Your task to perform on an android device: Open Android settings Image 0: 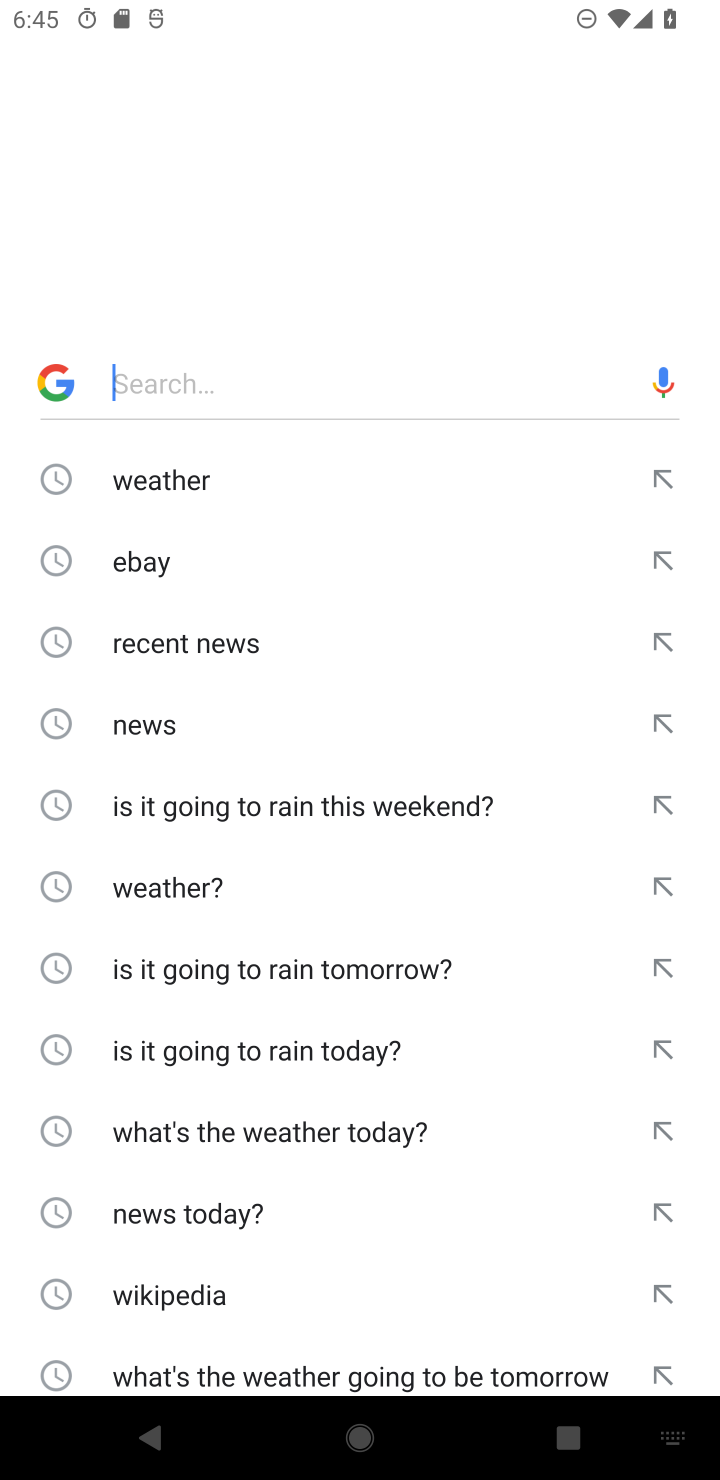
Step 0: press home button
Your task to perform on an android device: Open Android settings Image 1: 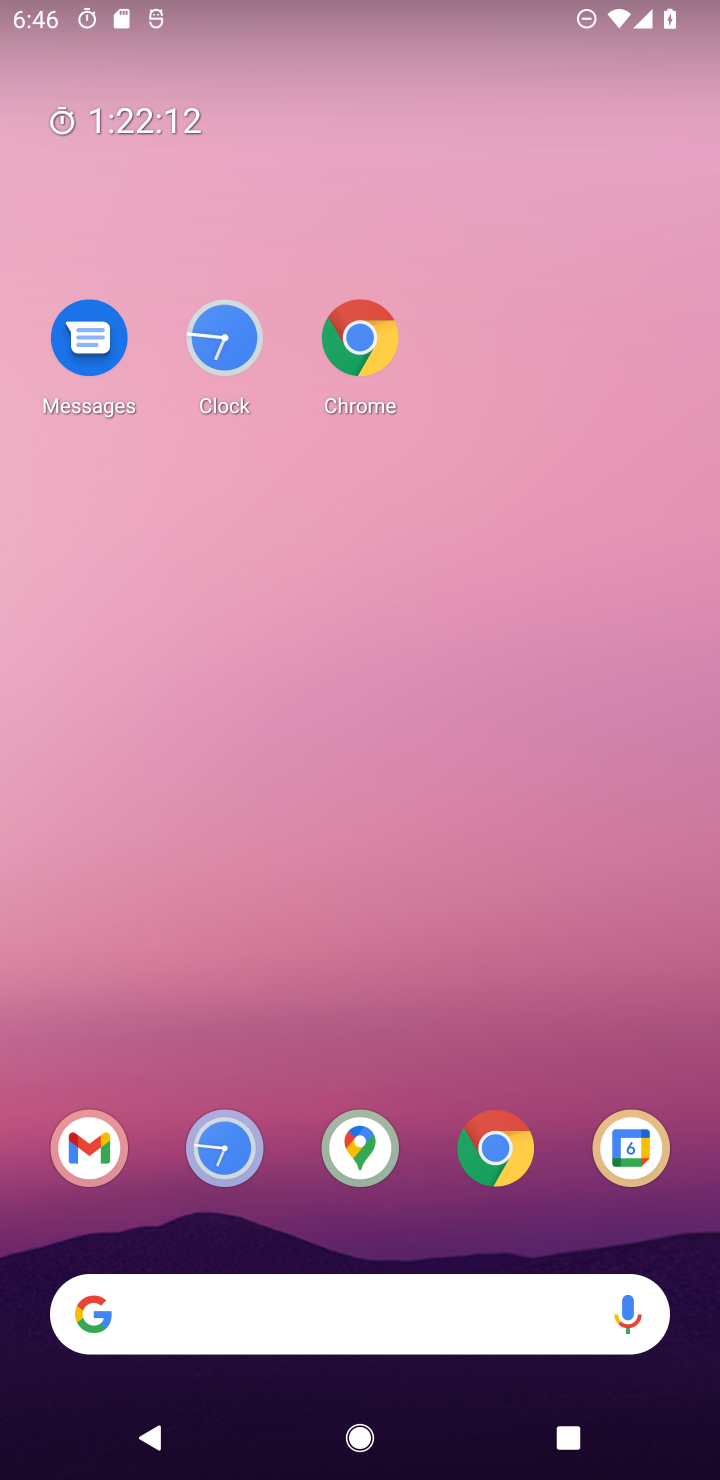
Step 1: drag from (426, 1191) to (518, 589)
Your task to perform on an android device: Open Android settings Image 2: 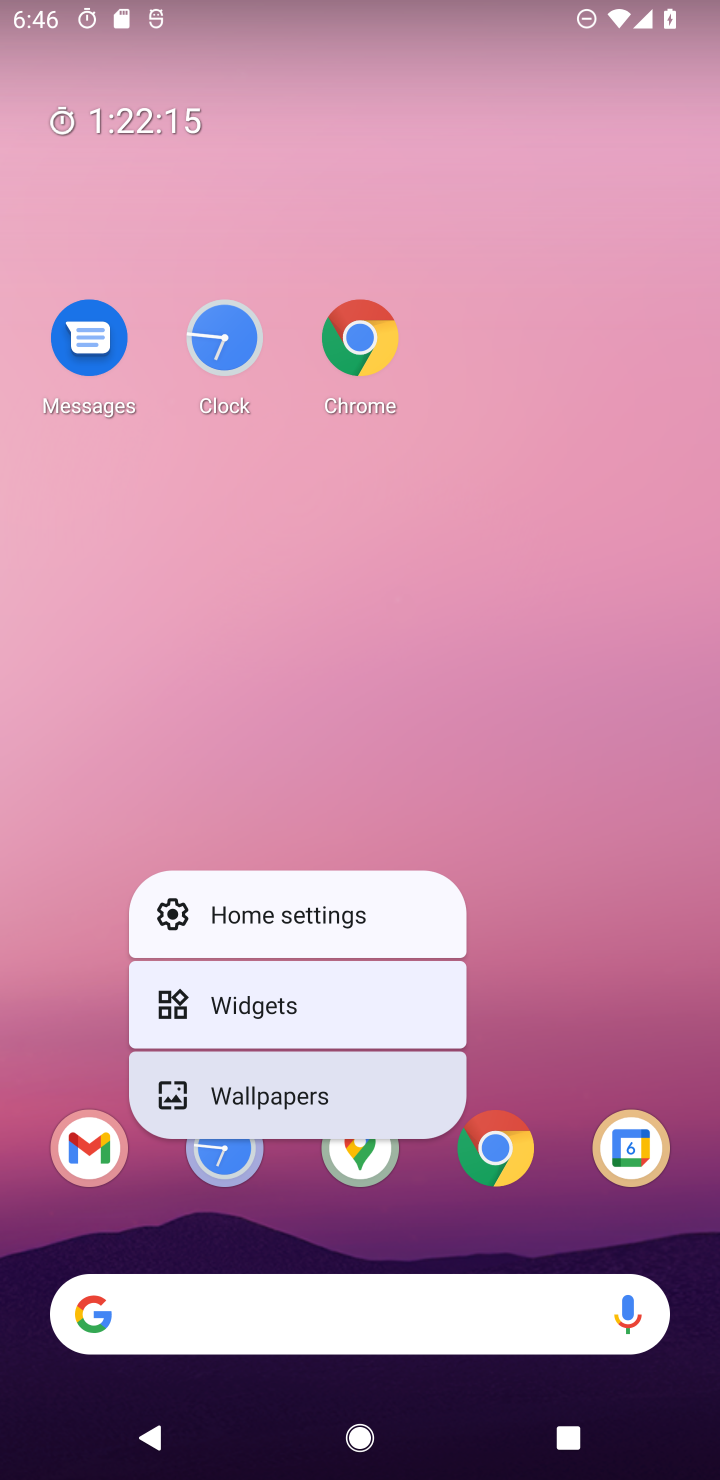
Step 2: drag from (442, 1241) to (547, 323)
Your task to perform on an android device: Open Android settings Image 3: 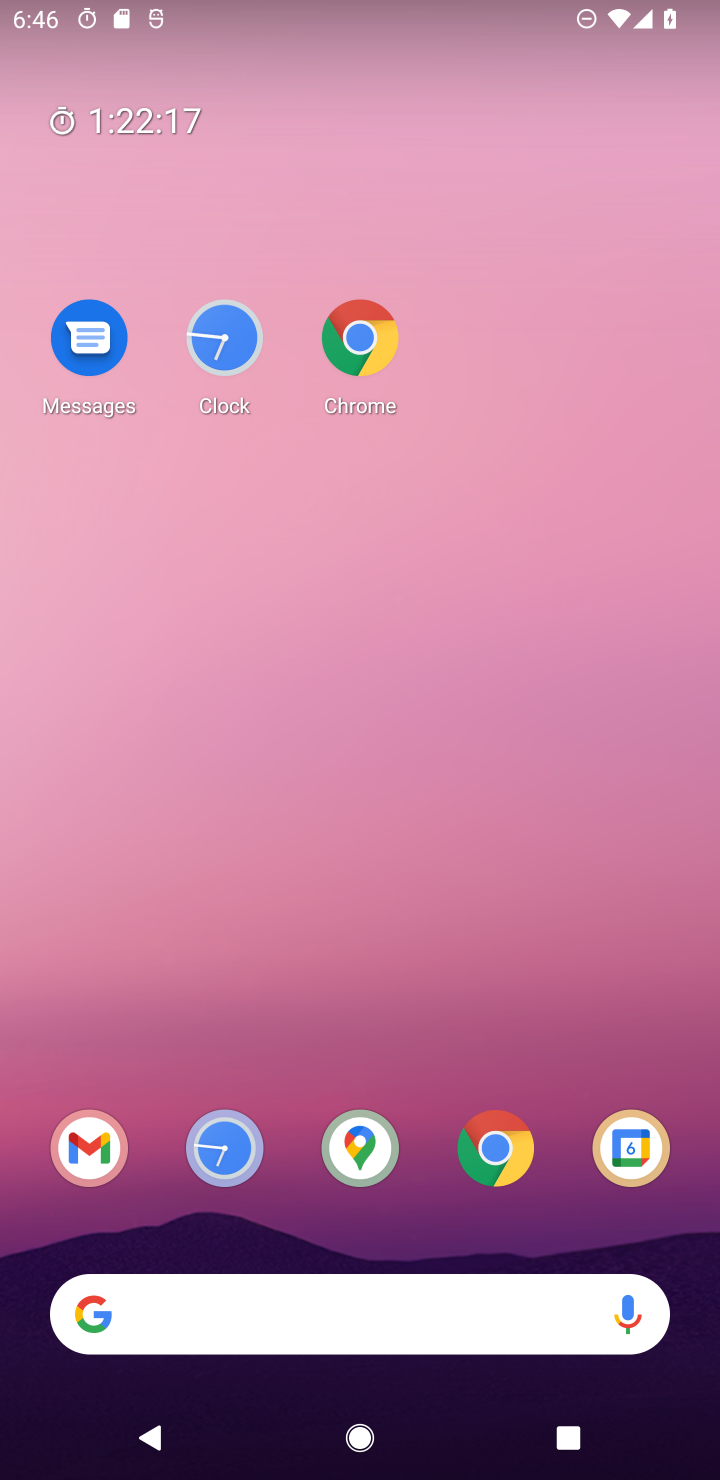
Step 3: drag from (400, 680) to (415, 295)
Your task to perform on an android device: Open Android settings Image 4: 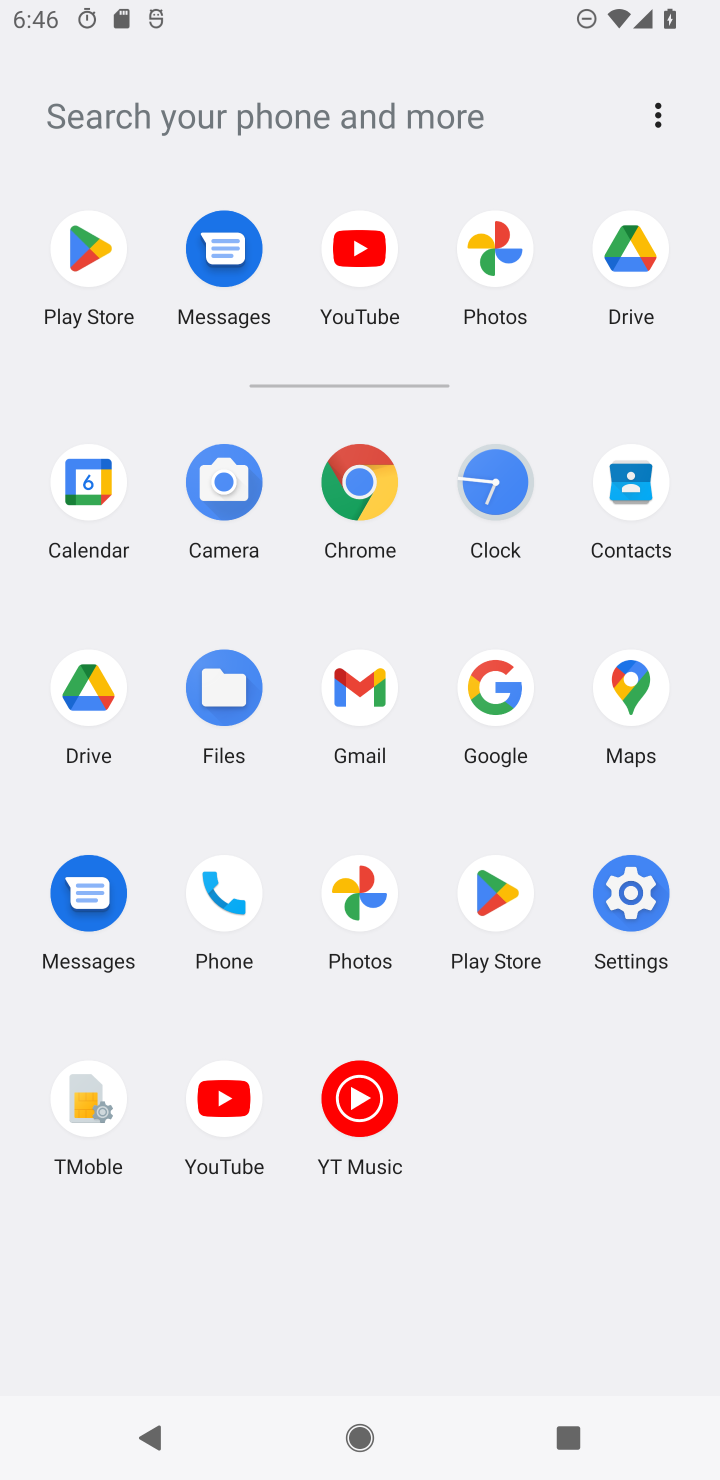
Step 4: click (626, 907)
Your task to perform on an android device: Open Android settings Image 5: 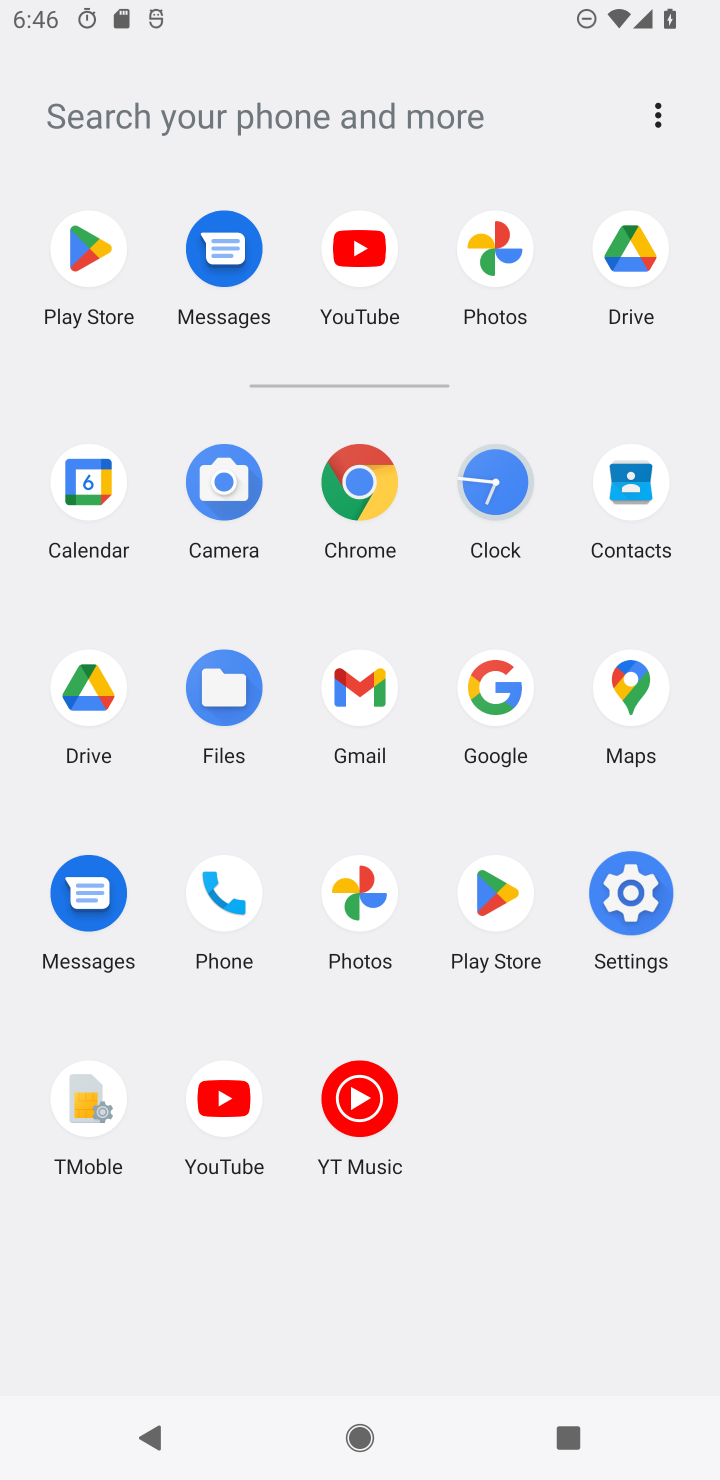
Step 5: click (626, 907)
Your task to perform on an android device: Open Android settings Image 6: 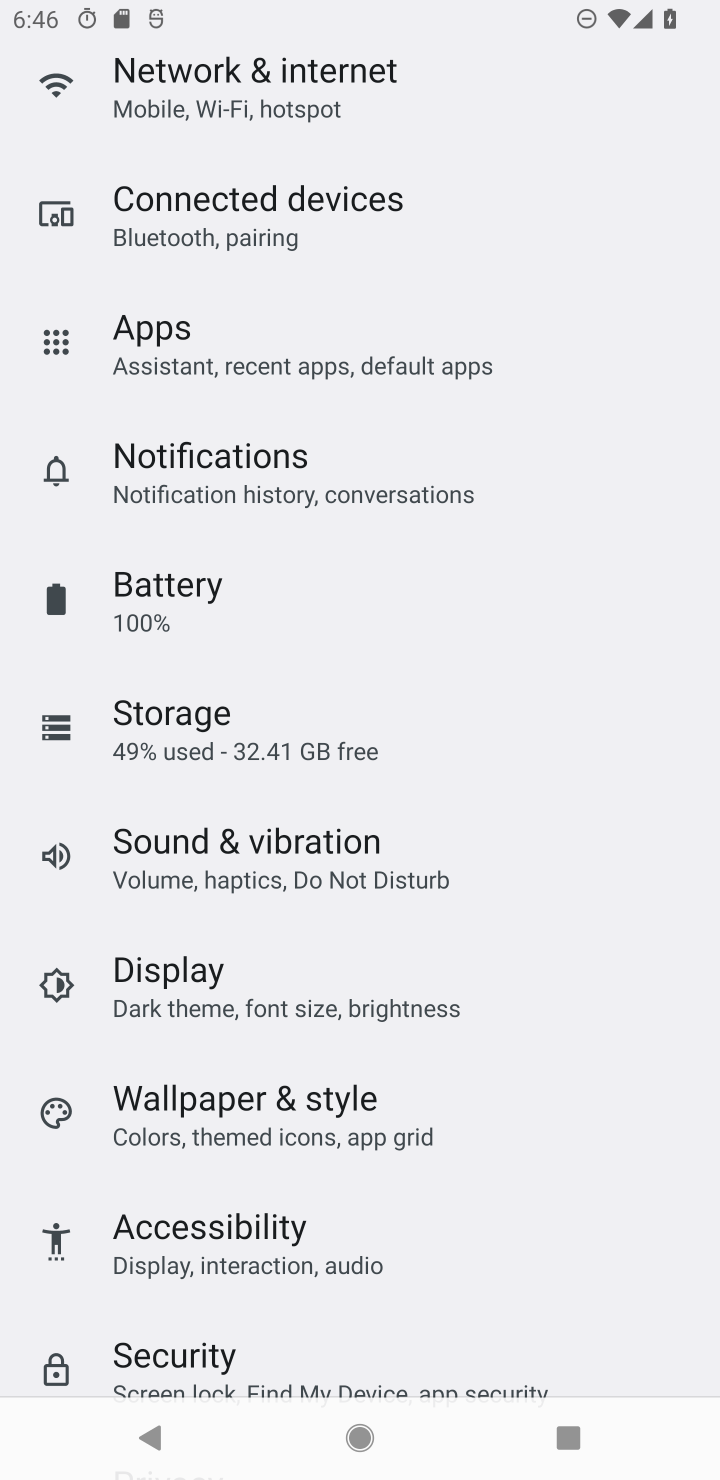
Step 6: drag from (300, 866) to (424, 212)
Your task to perform on an android device: Open Android settings Image 7: 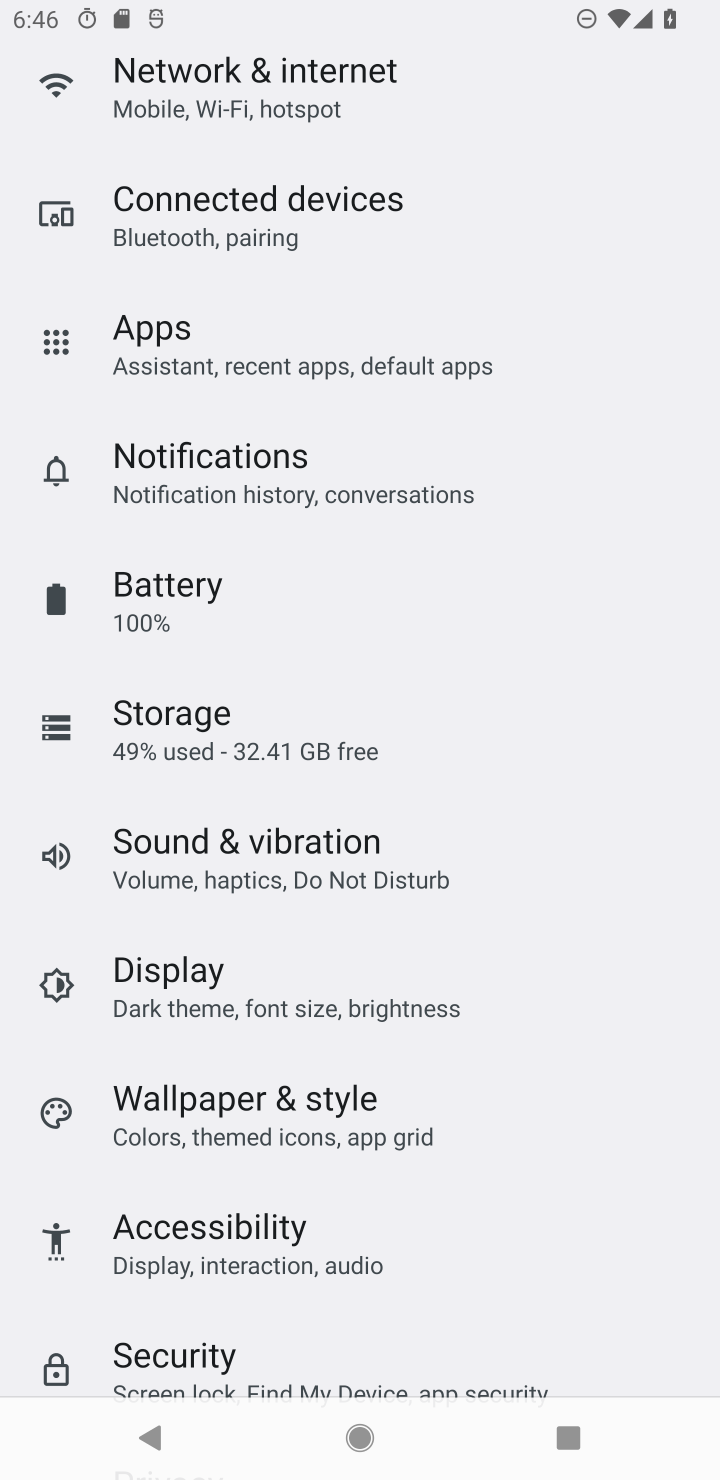
Step 7: drag from (372, 1103) to (430, 355)
Your task to perform on an android device: Open Android settings Image 8: 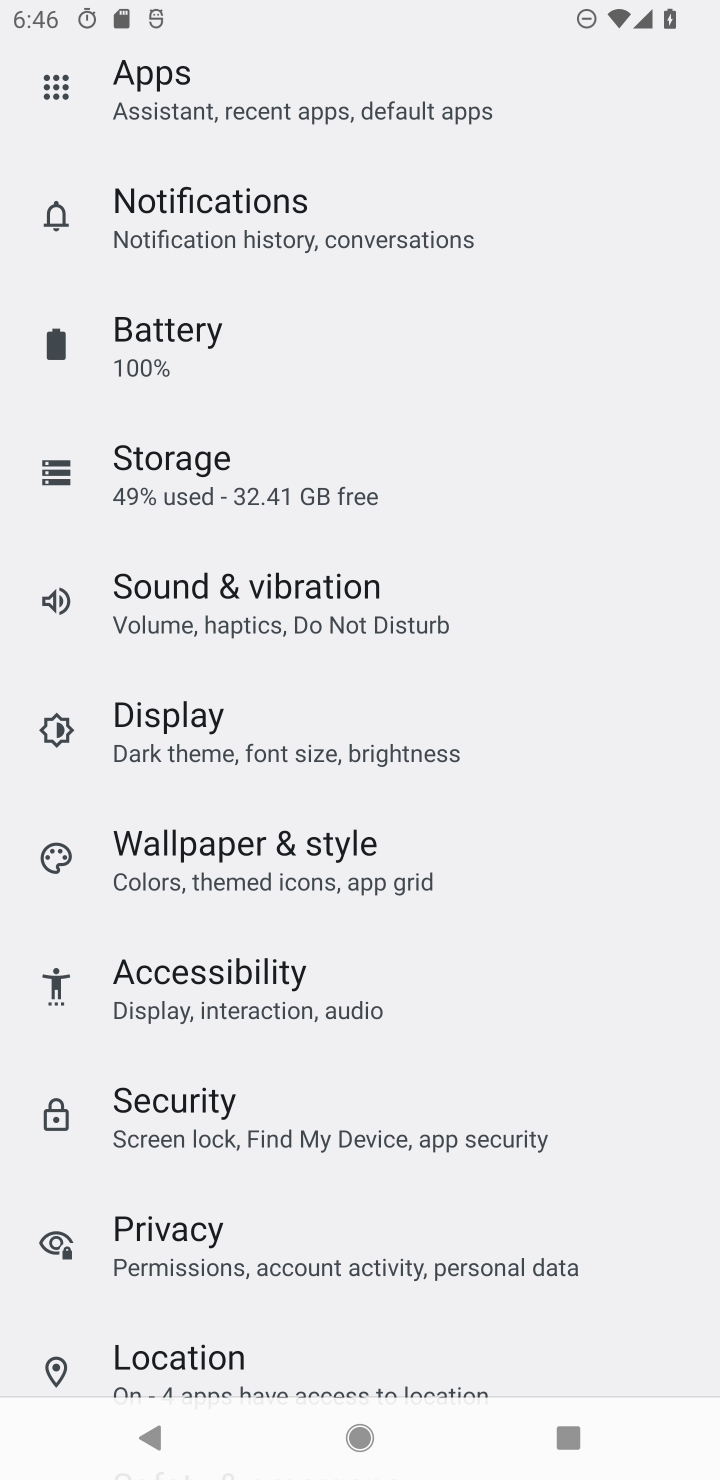
Step 8: drag from (418, 1214) to (623, 559)
Your task to perform on an android device: Open Android settings Image 9: 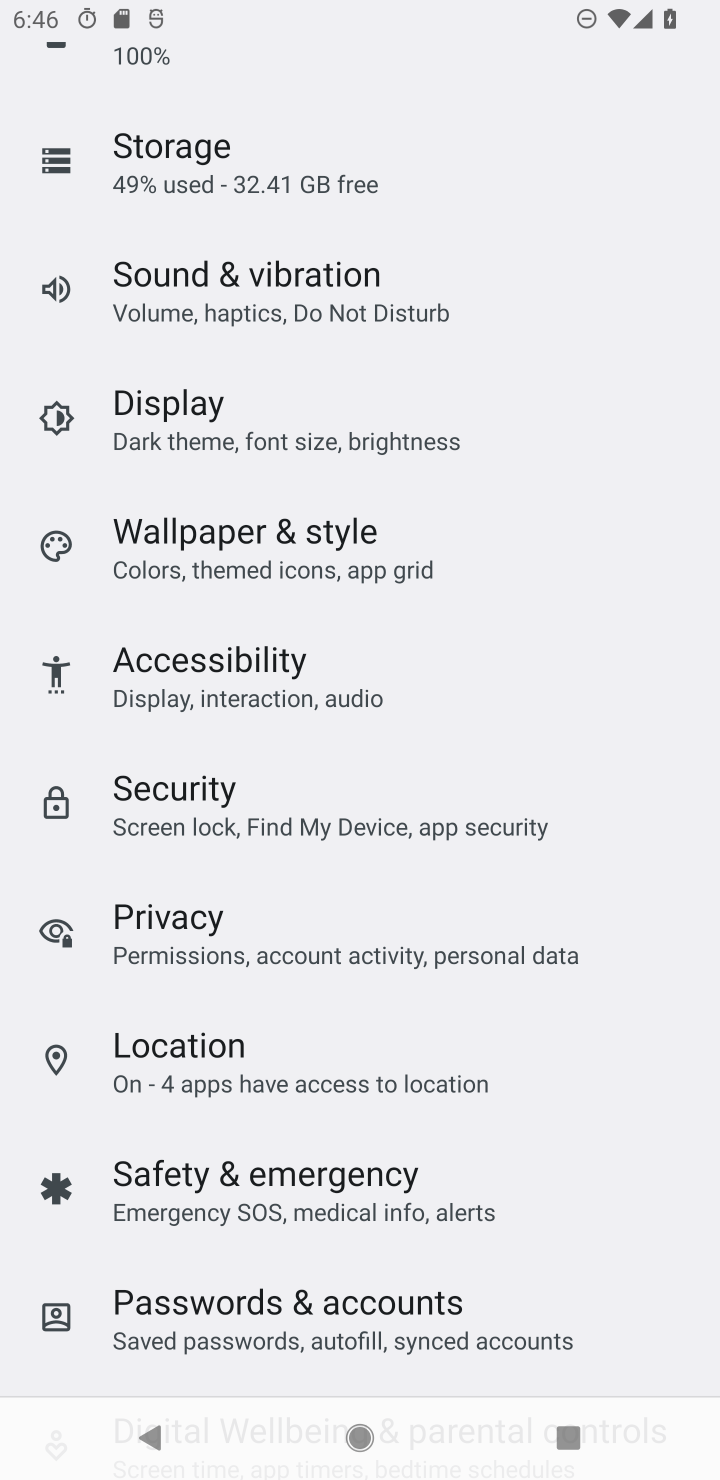
Step 9: drag from (365, 1277) to (463, 621)
Your task to perform on an android device: Open Android settings Image 10: 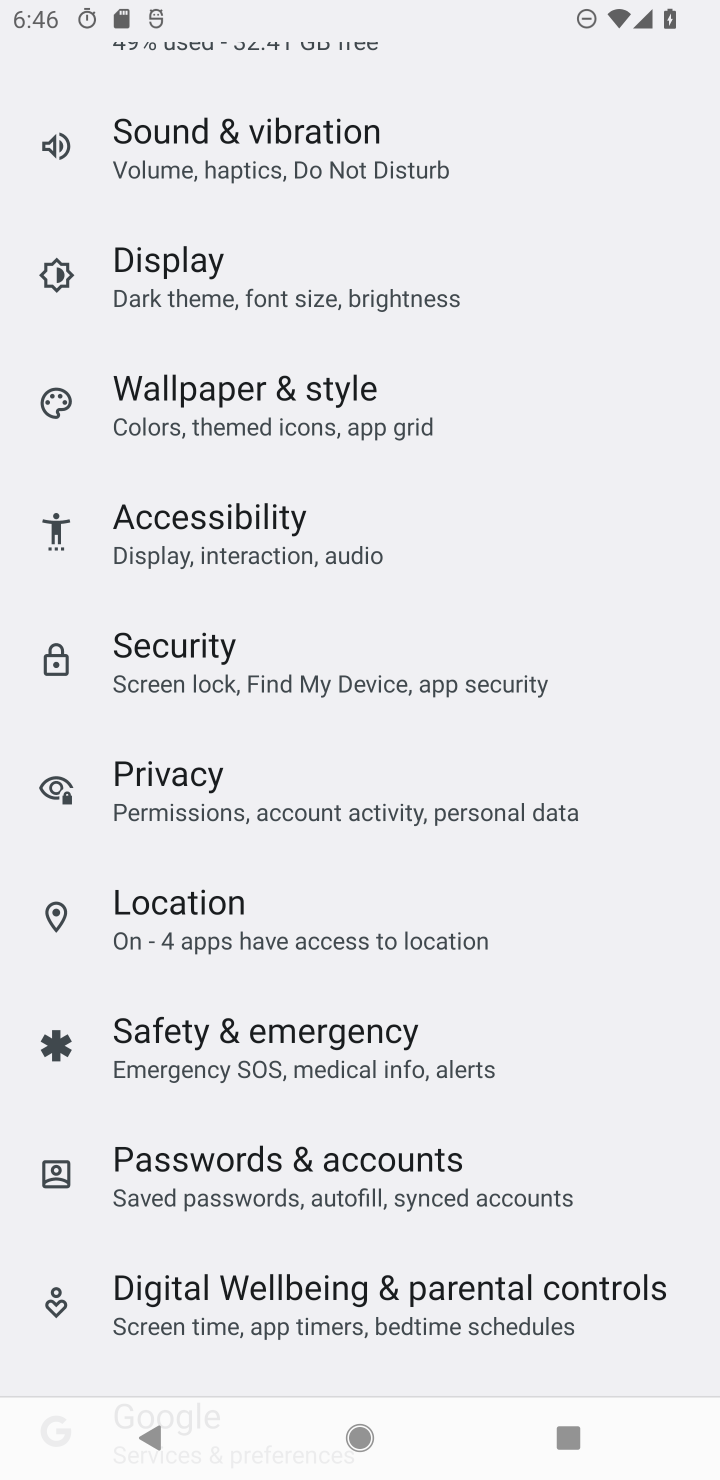
Step 10: drag from (338, 1244) to (561, 472)
Your task to perform on an android device: Open Android settings Image 11: 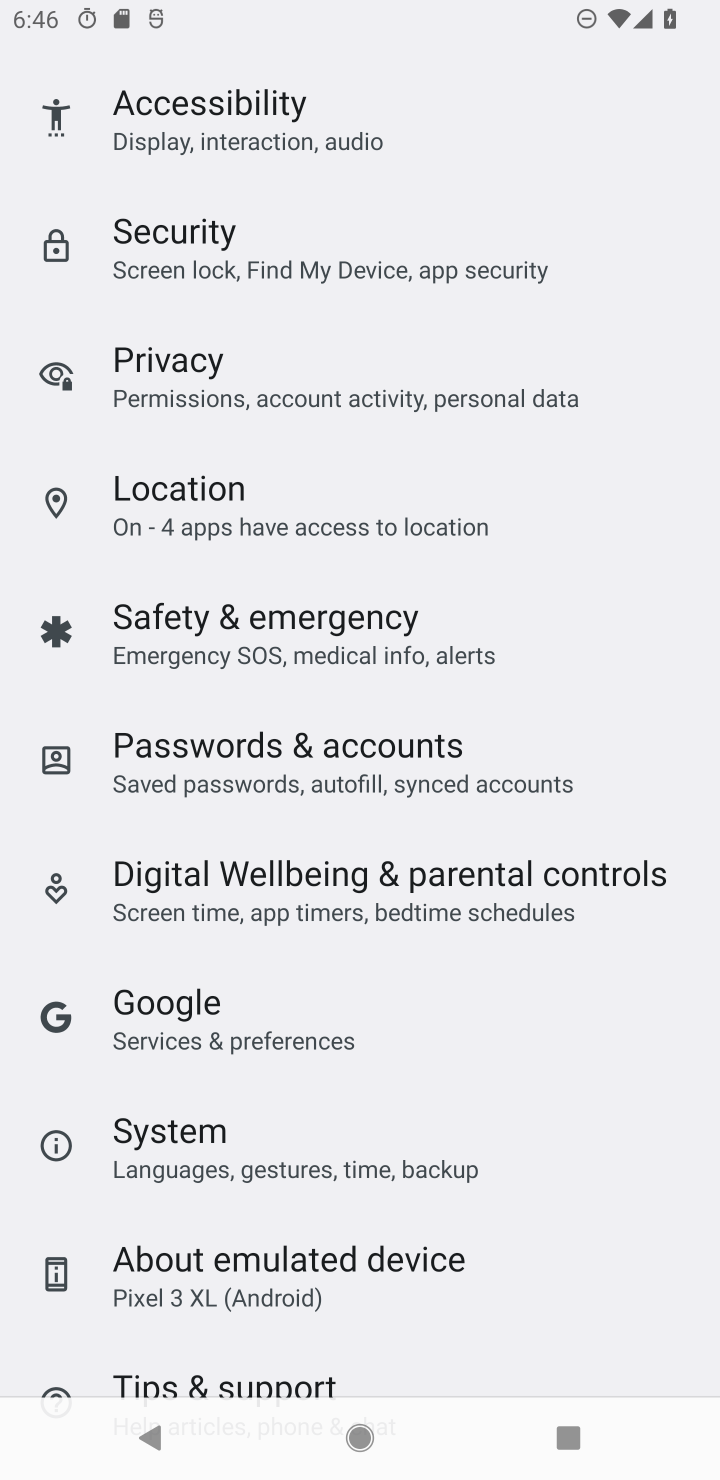
Step 11: drag from (313, 1107) to (434, 522)
Your task to perform on an android device: Open Android settings Image 12: 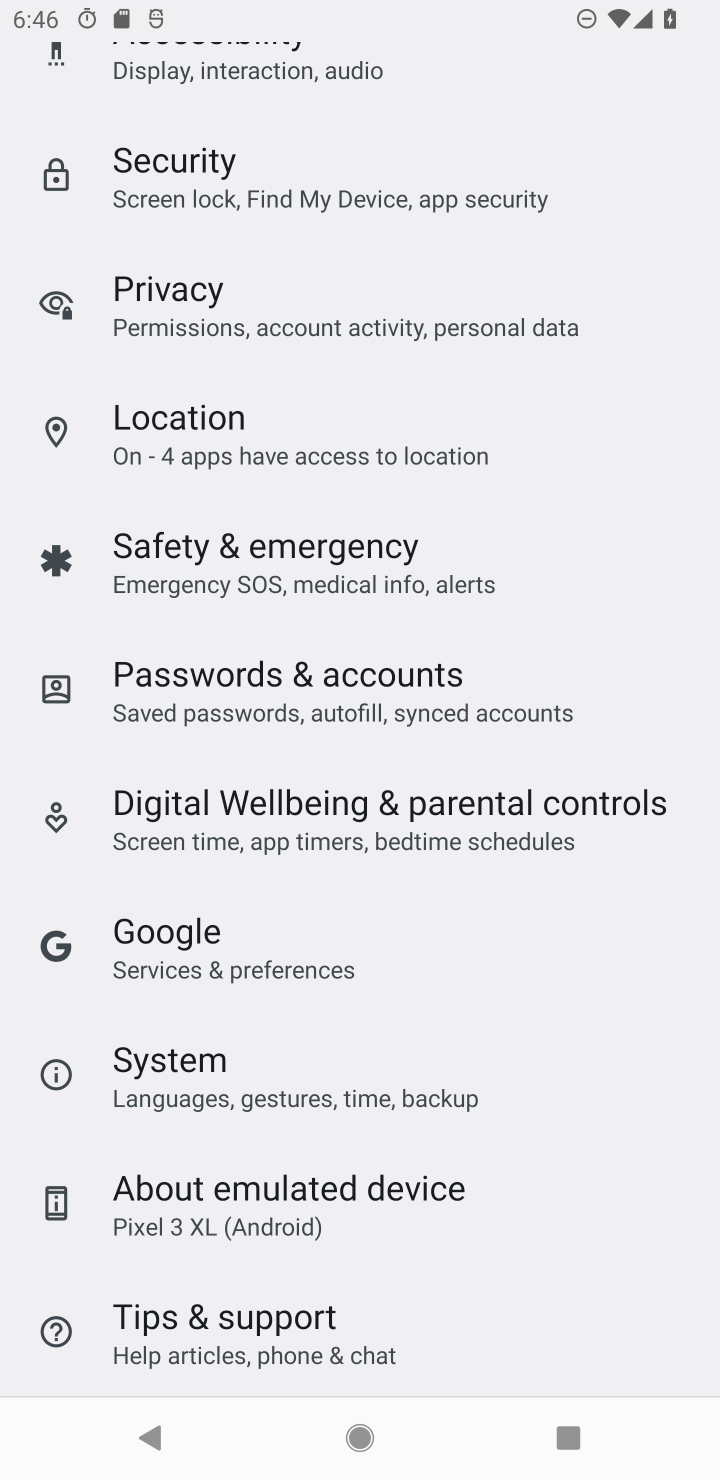
Step 12: drag from (359, 1075) to (468, 329)
Your task to perform on an android device: Open Android settings Image 13: 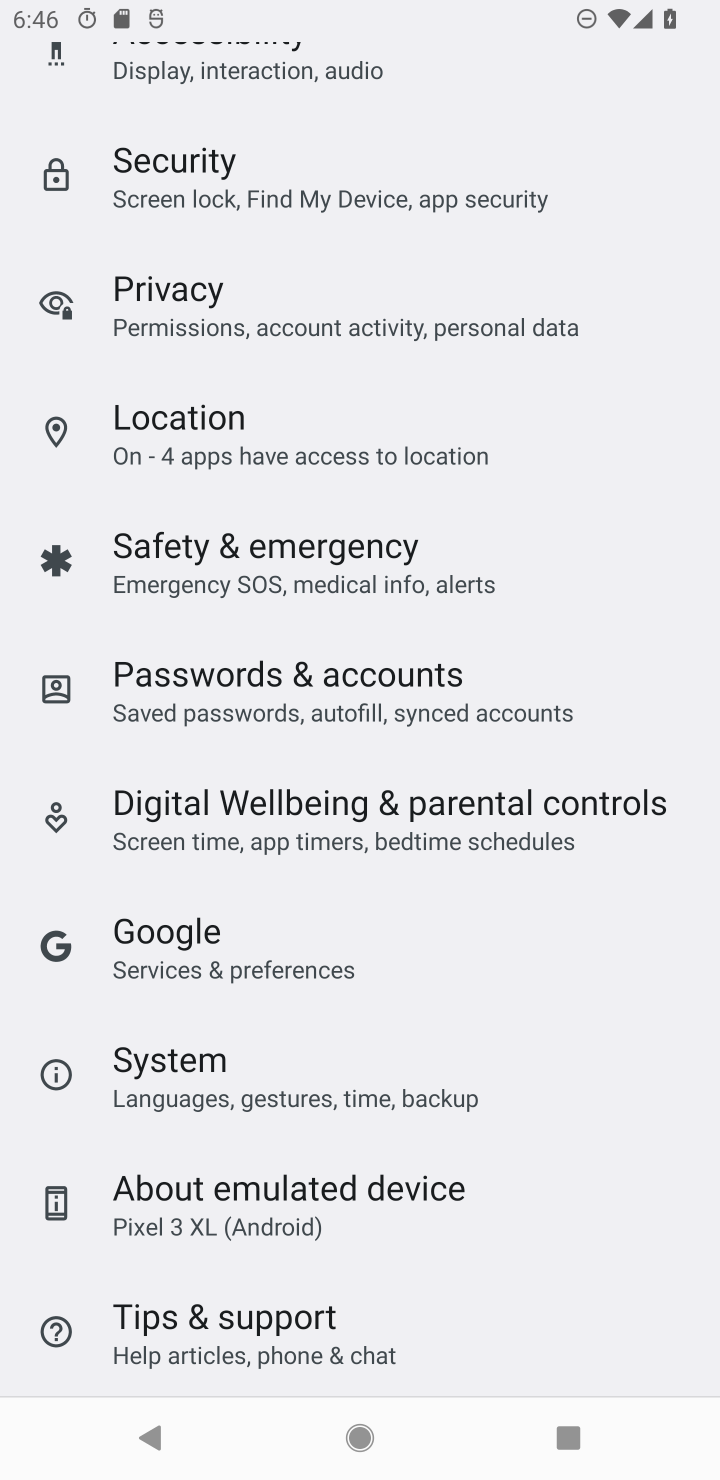
Step 13: click (274, 1218)
Your task to perform on an android device: Open Android settings Image 14: 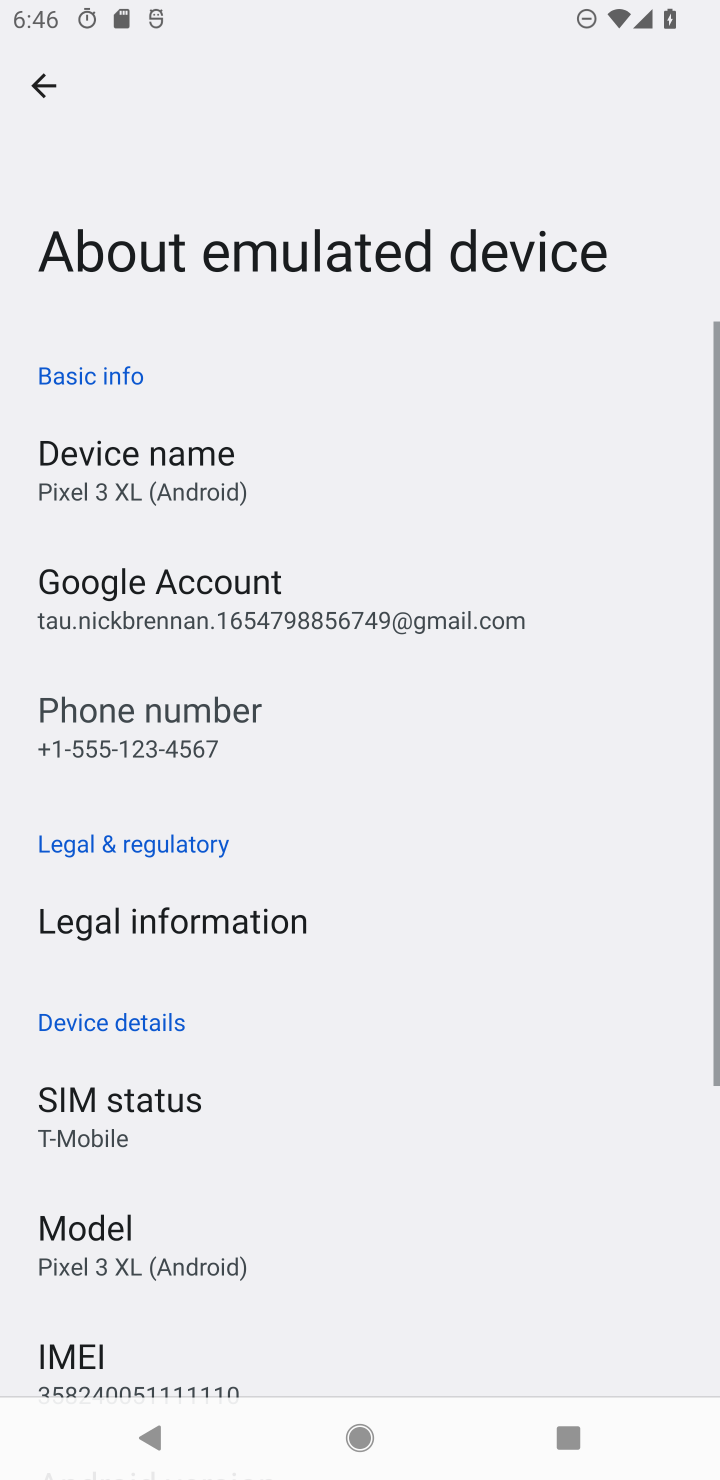
Step 14: drag from (282, 1257) to (435, 464)
Your task to perform on an android device: Open Android settings Image 15: 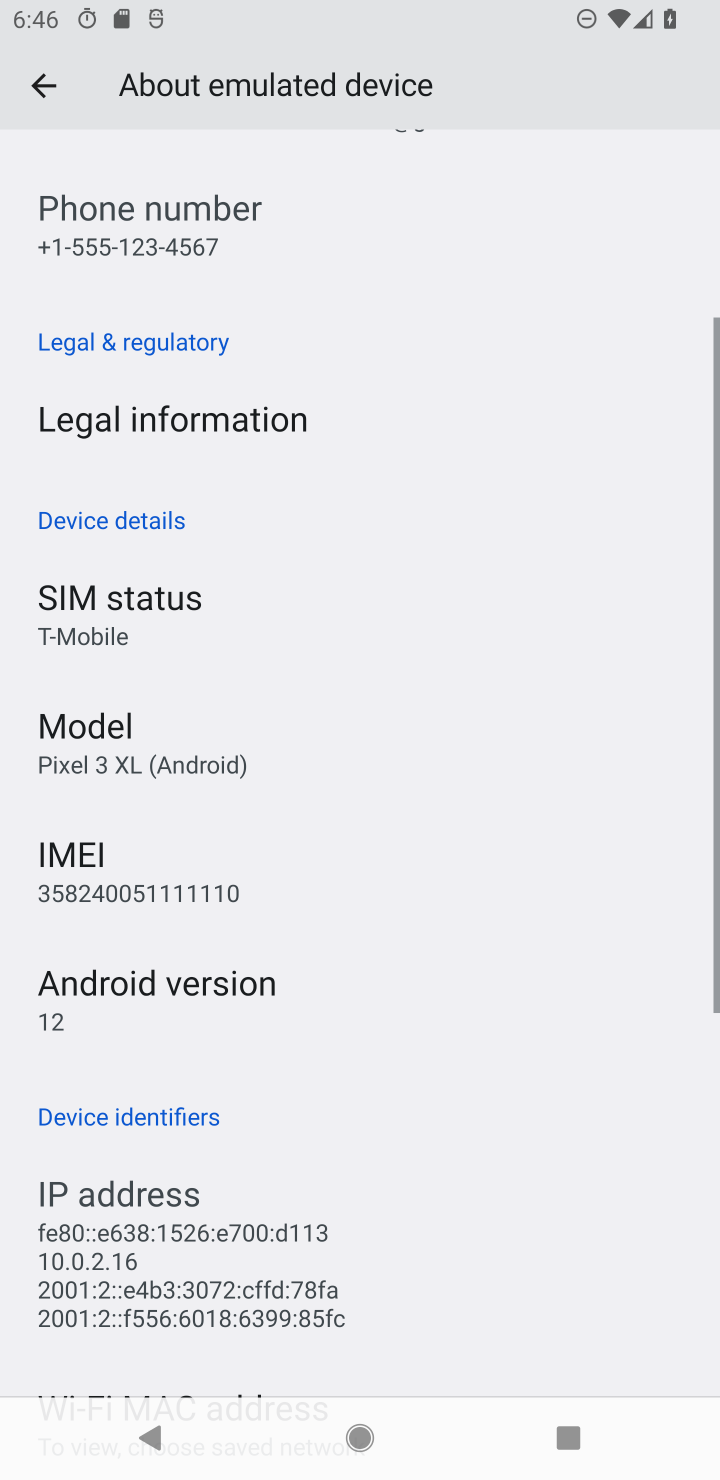
Step 15: click (157, 999)
Your task to perform on an android device: Open Android settings Image 16: 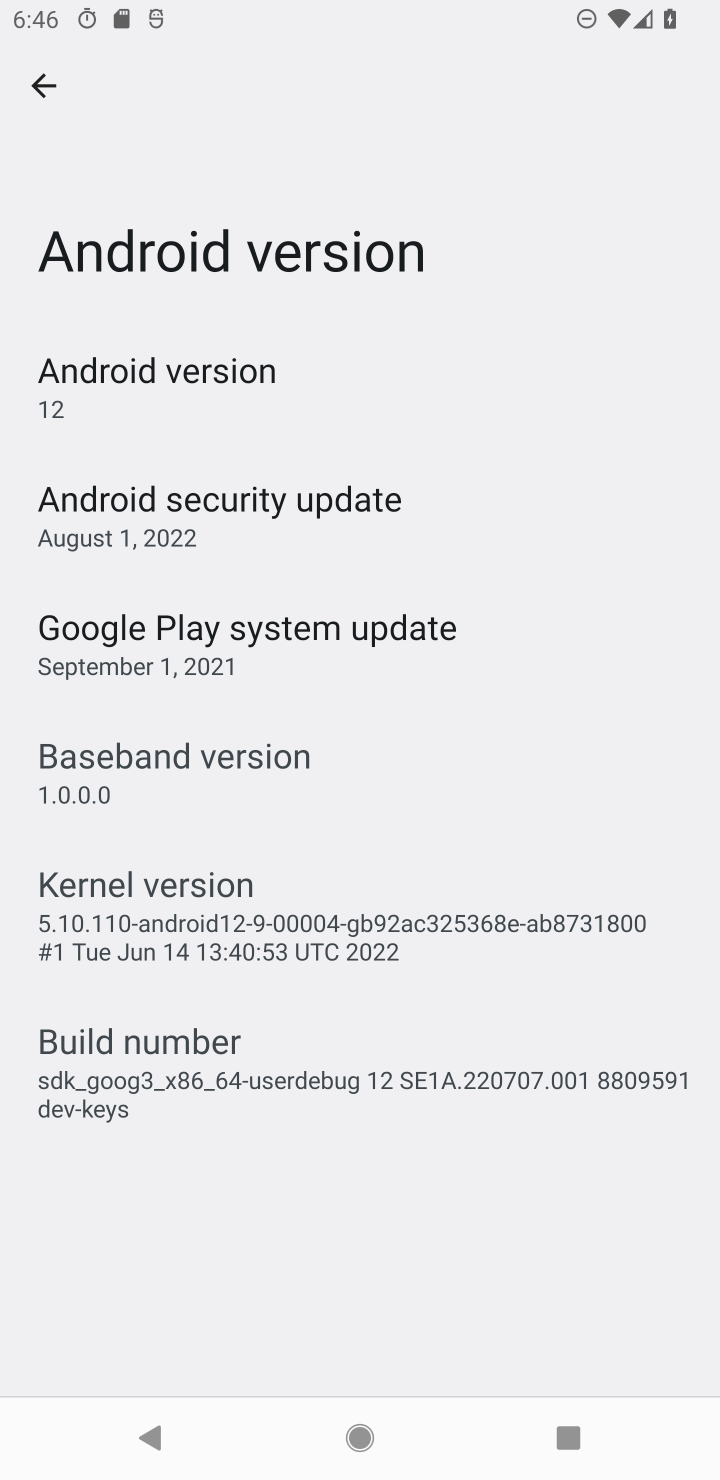
Step 16: drag from (201, 1024) to (708, 629)
Your task to perform on an android device: Open Android settings Image 17: 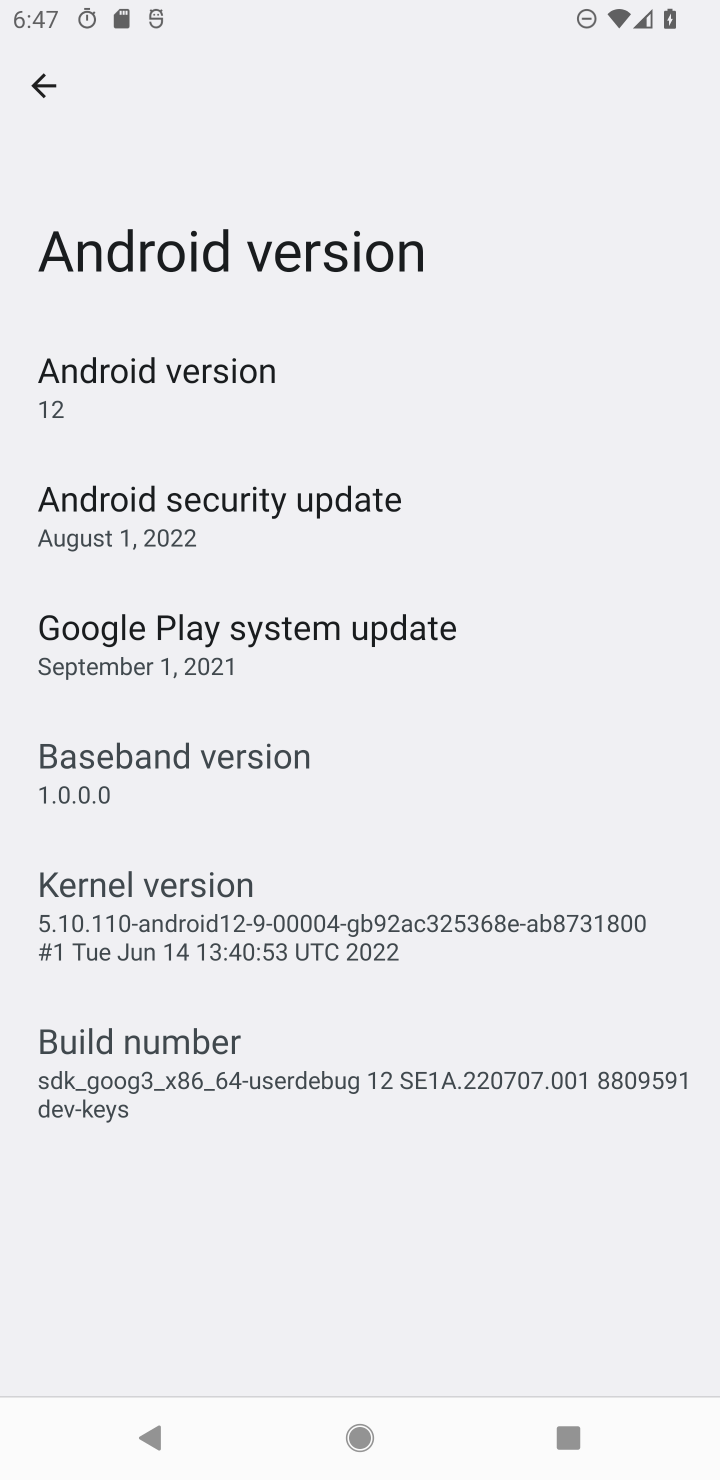
Step 17: click (343, 554)
Your task to perform on an android device: Open Android settings Image 18: 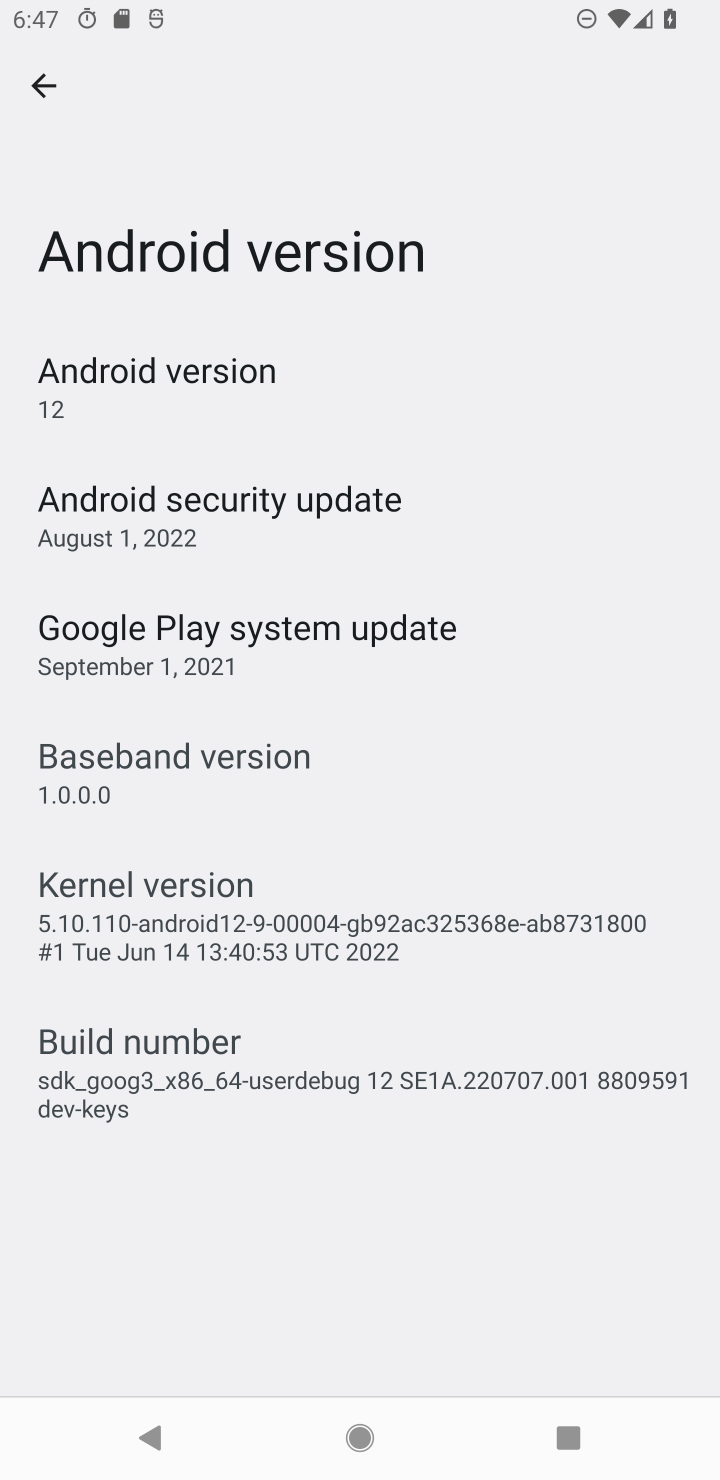
Step 18: click (275, 343)
Your task to perform on an android device: Open Android settings Image 19: 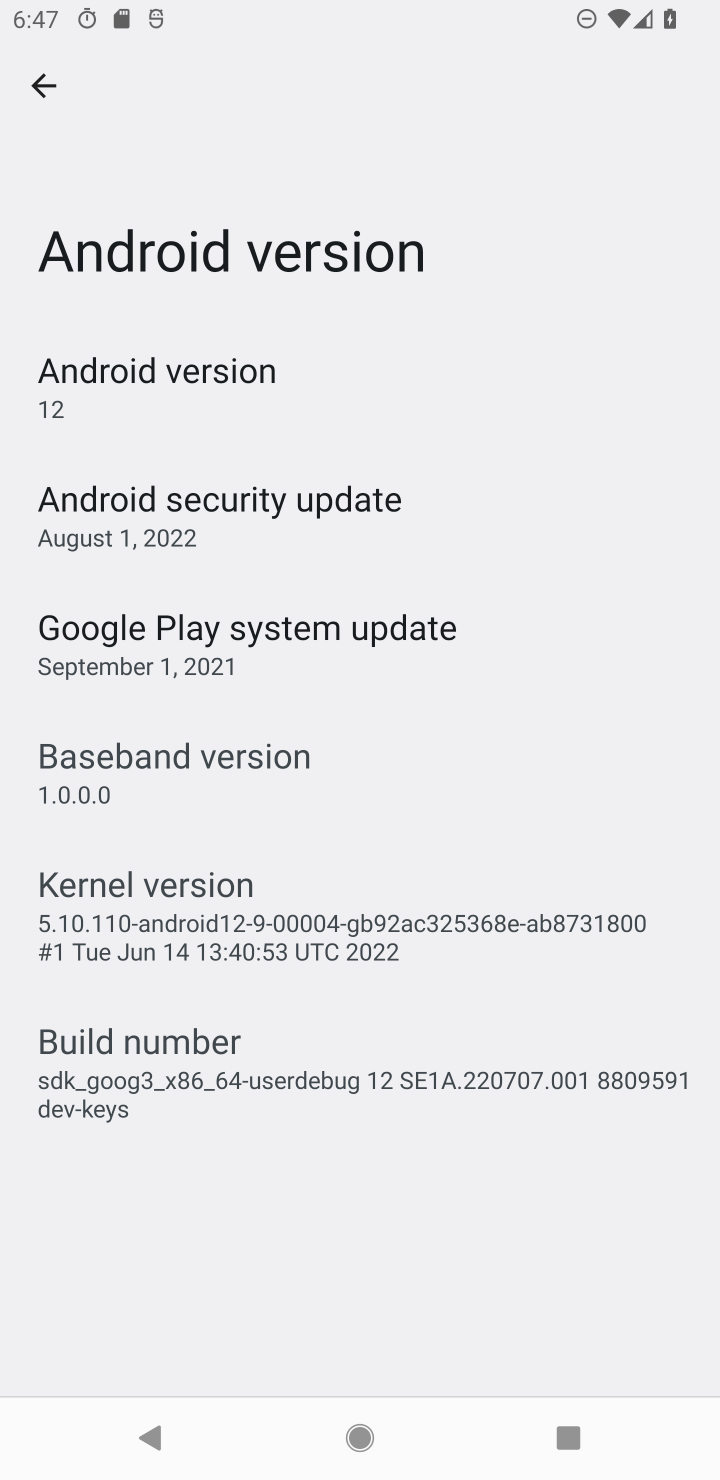
Step 19: click (236, 359)
Your task to perform on an android device: Open Android settings Image 20: 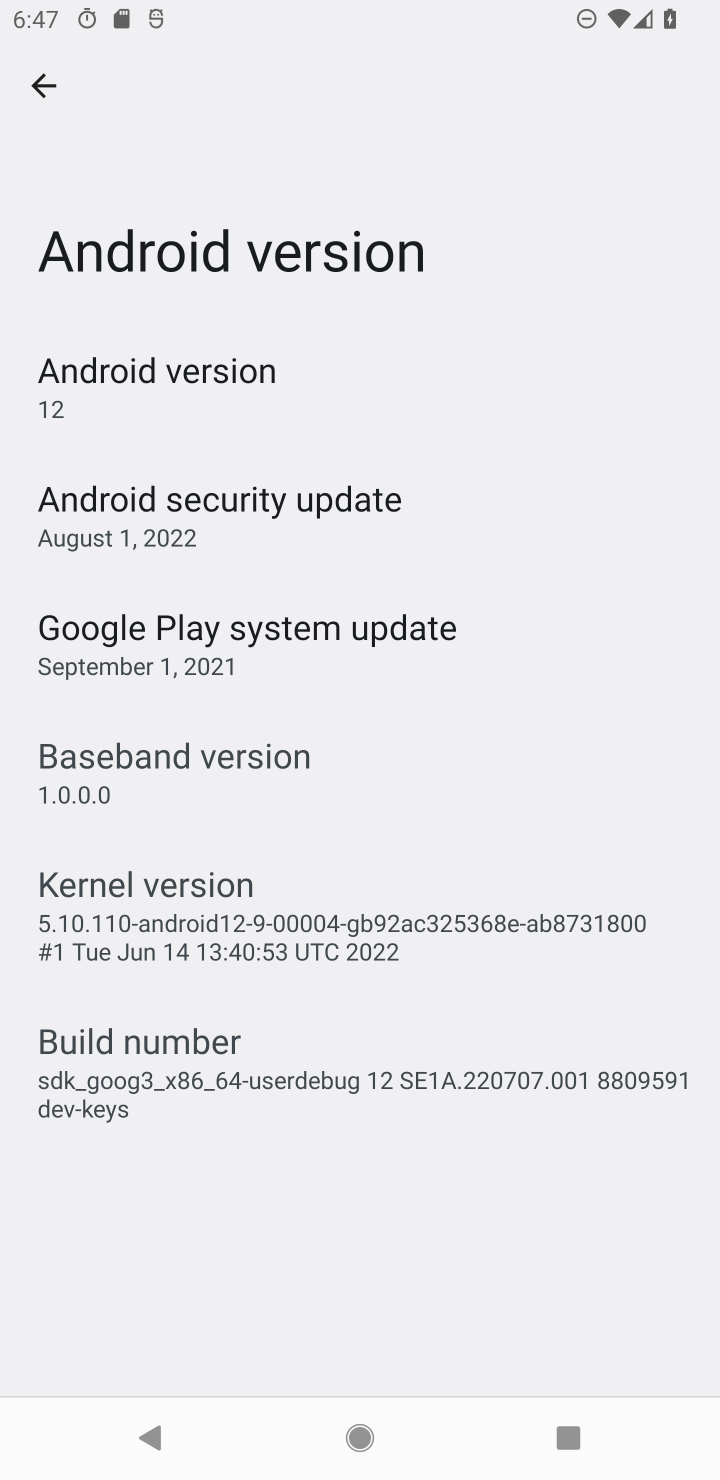
Step 20: task complete